Your task to perform on an android device: move an email to a new category in the gmail app Image 0: 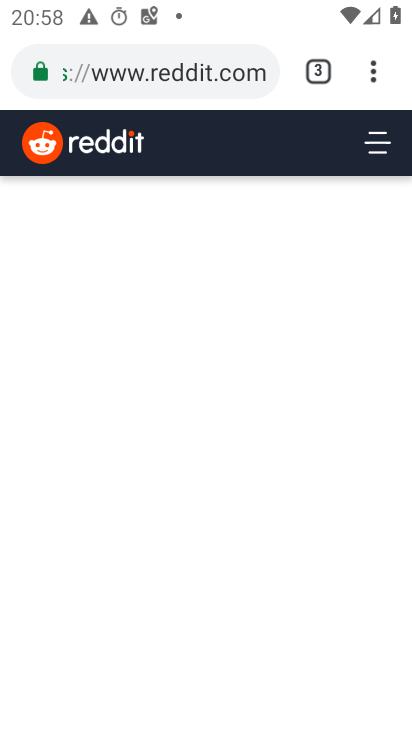
Step 0: press home button
Your task to perform on an android device: move an email to a new category in the gmail app Image 1: 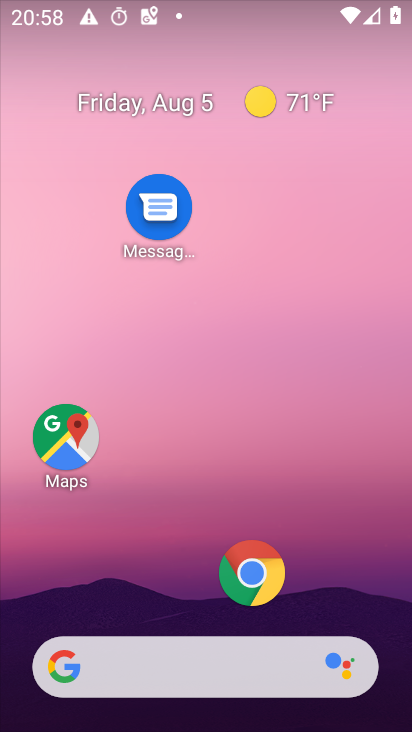
Step 1: drag from (193, 608) to (242, 79)
Your task to perform on an android device: move an email to a new category in the gmail app Image 2: 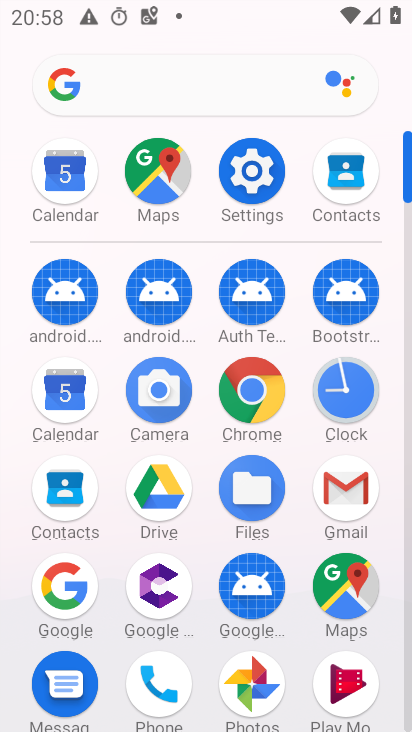
Step 2: click (337, 479)
Your task to perform on an android device: move an email to a new category in the gmail app Image 3: 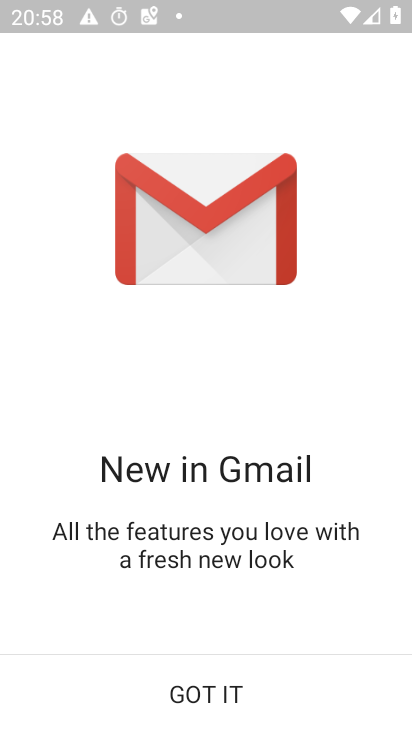
Step 3: click (201, 692)
Your task to perform on an android device: move an email to a new category in the gmail app Image 4: 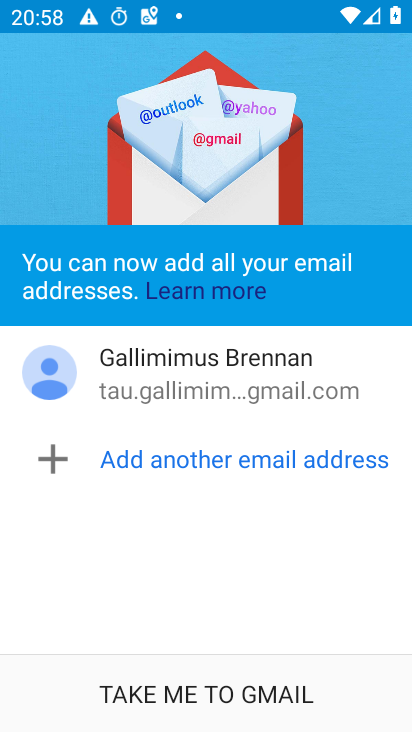
Step 4: click (198, 700)
Your task to perform on an android device: move an email to a new category in the gmail app Image 5: 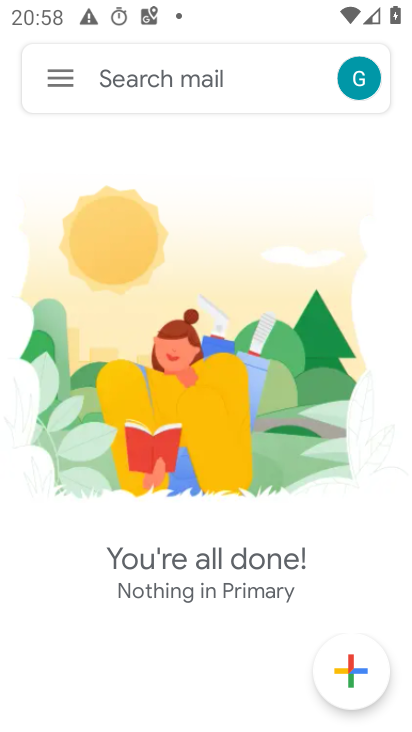
Step 5: click (57, 78)
Your task to perform on an android device: move an email to a new category in the gmail app Image 6: 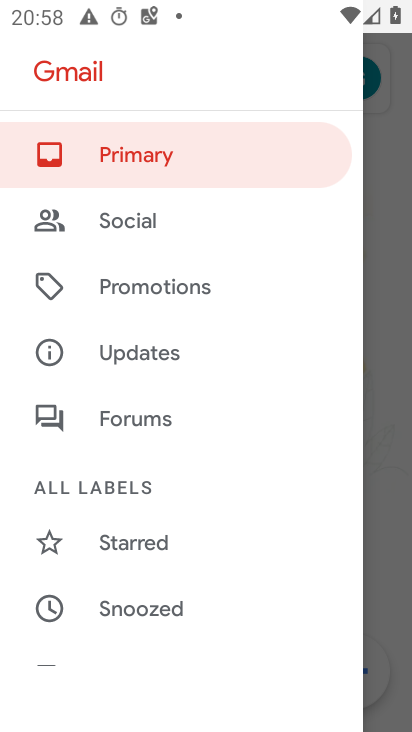
Step 6: drag from (159, 570) to (173, 204)
Your task to perform on an android device: move an email to a new category in the gmail app Image 7: 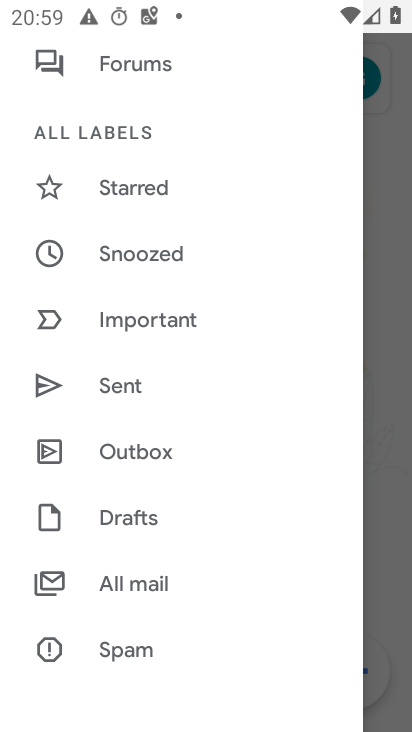
Step 7: click (182, 583)
Your task to perform on an android device: move an email to a new category in the gmail app Image 8: 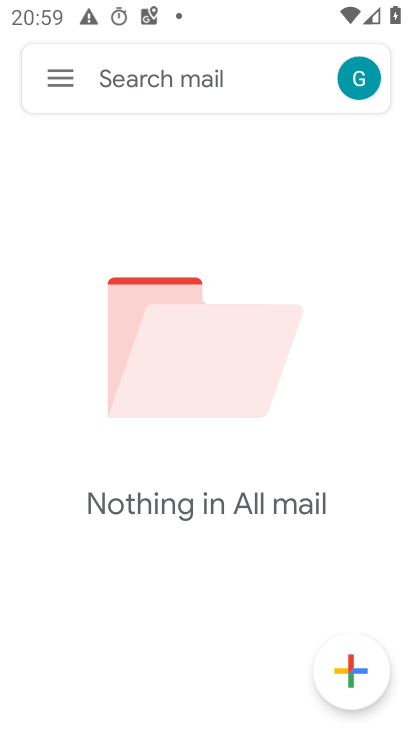
Step 8: task complete